Your task to perform on an android device: check data usage Image 0: 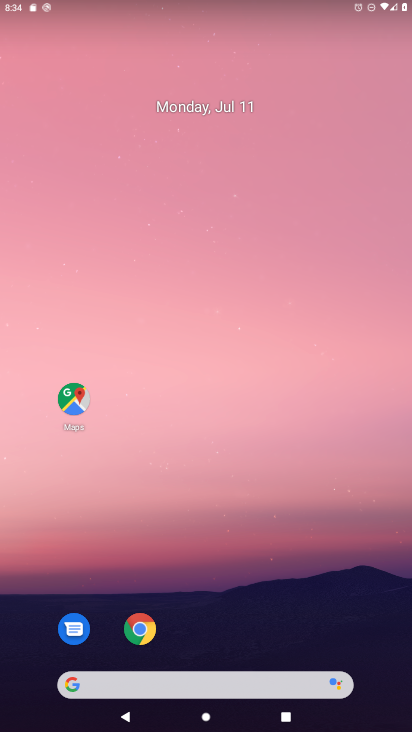
Step 0: drag from (222, 630) to (260, 104)
Your task to perform on an android device: check data usage Image 1: 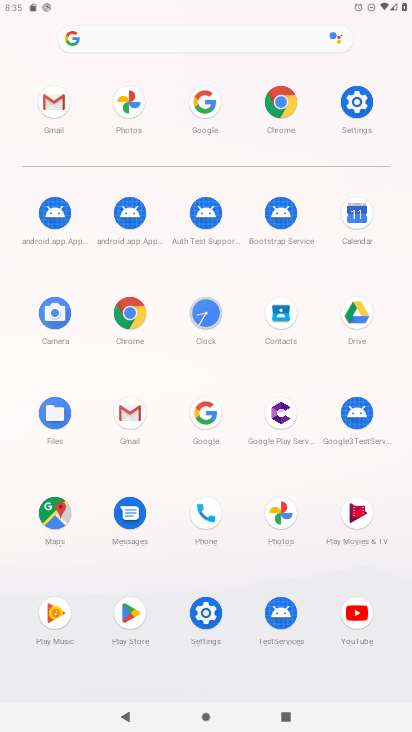
Step 1: click (368, 100)
Your task to perform on an android device: check data usage Image 2: 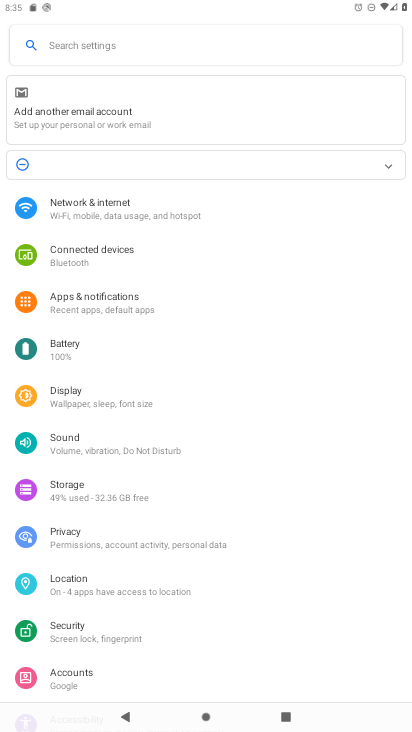
Step 2: click (126, 216)
Your task to perform on an android device: check data usage Image 3: 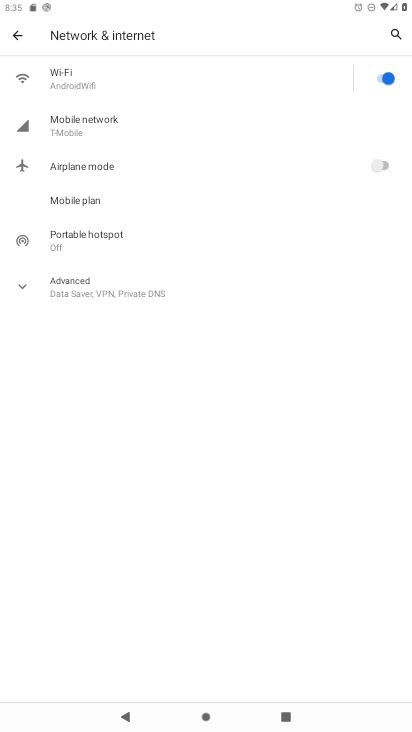
Step 3: click (99, 125)
Your task to perform on an android device: check data usage Image 4: 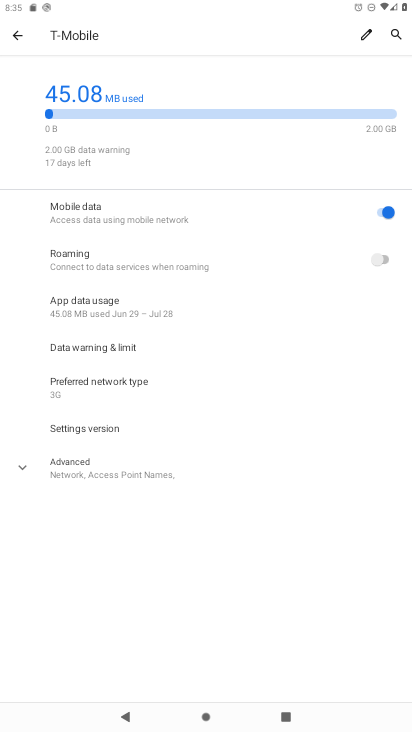
Step 4: task complete